Your task to perform on an android device: Open Google Image 0: 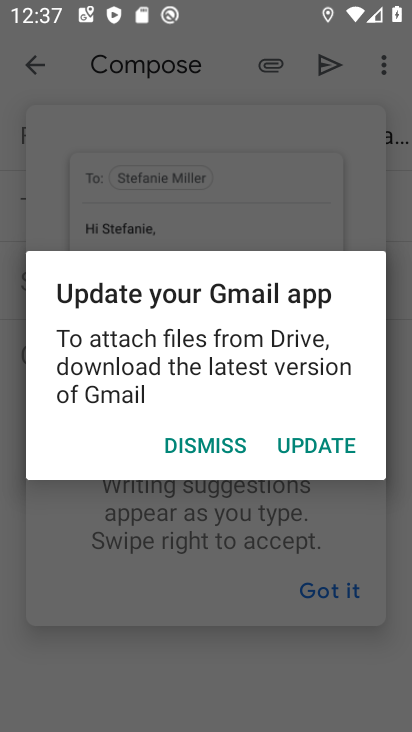
Step 0: press home button
Your task to perform on an android device: Open Google Image 1: 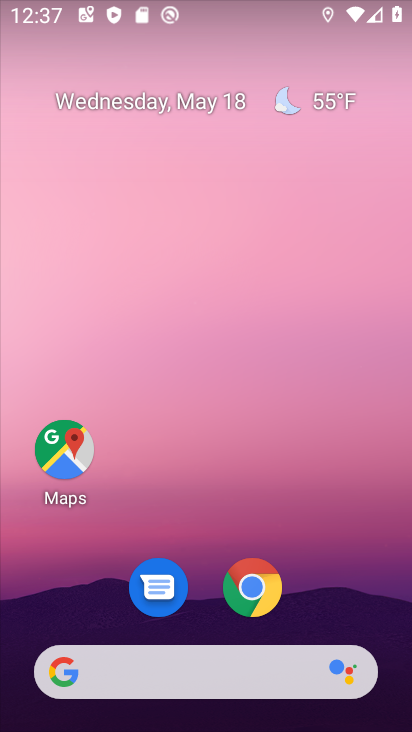
Step 1: click (184, 673)
Your task to perform on an android device: Open Google Image 2: 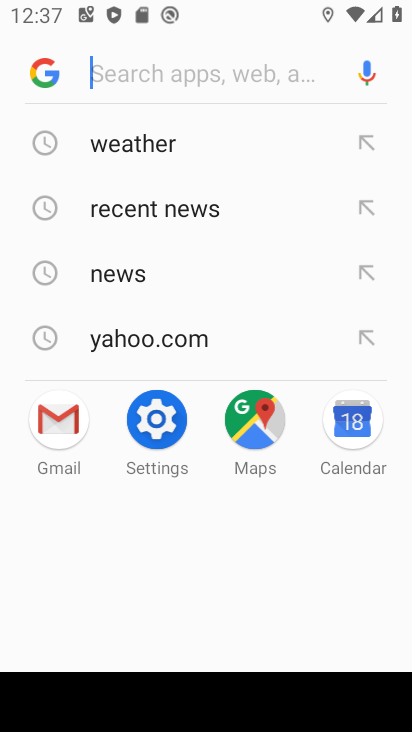
Step 2: task complete